Your task to perform on an android device: turn on airplane mode Image 0: 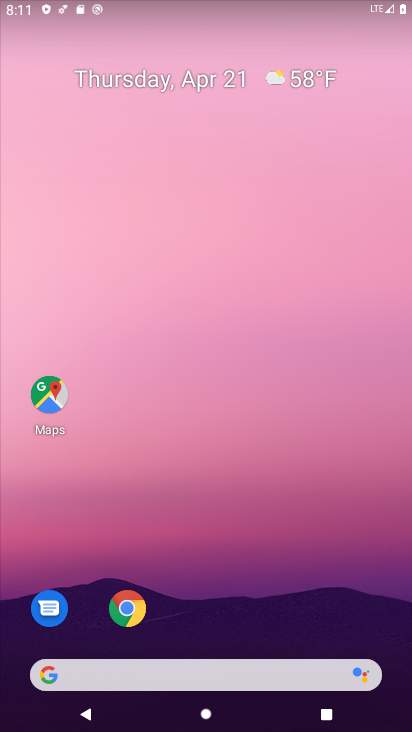
Step 0: drag from (317, 569) to (330, 80)
Your task to perform on an android device: turn on airplane mode Image 1: 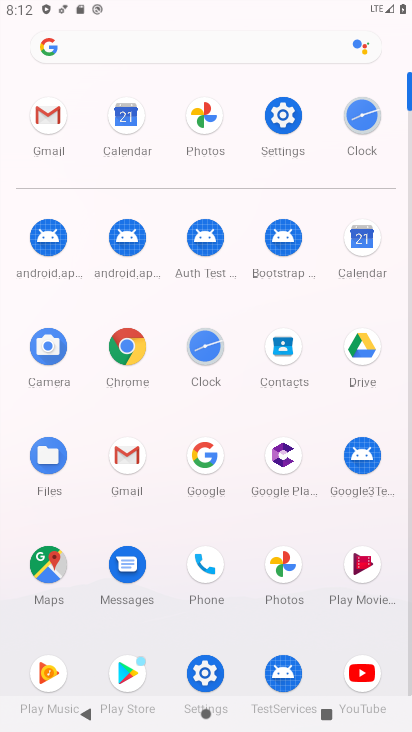
Step 1: click (287, 117)
Your task to perform on an android device: turn on airplane mode Image 2: 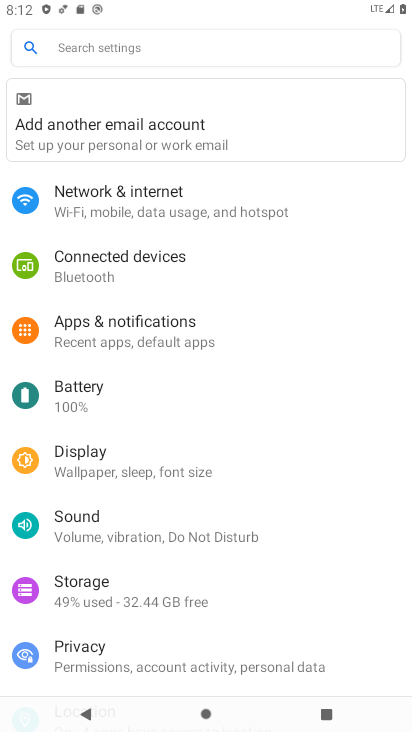
Step 2: click (266, 187)
Your task to perform on an android device: turn on airplane mode Image 3: 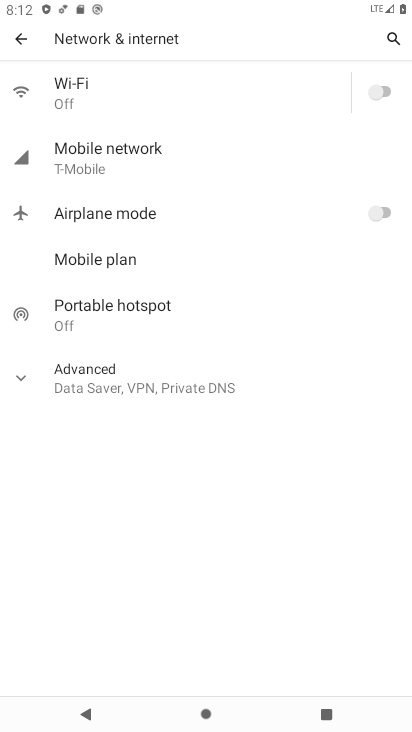
Step 3: click (377, 211)
Your task to perform on an android device: turn on airplane mode Image 4: 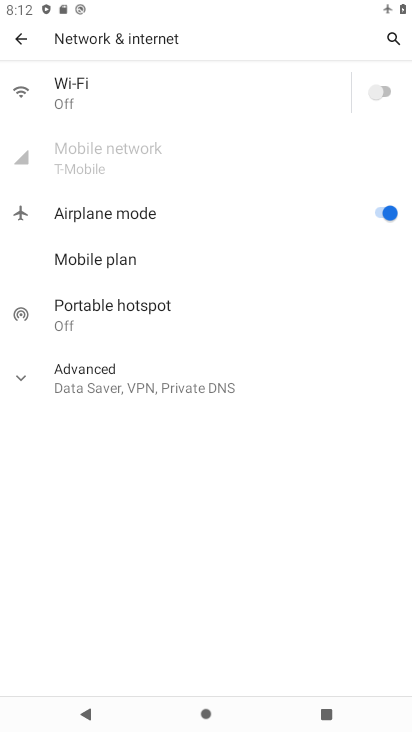
Step 4: task complete